Your task to perform on an android device: Look up the best rated coffee table on Ikea Image 0: 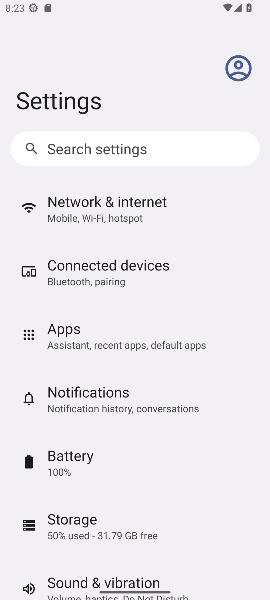
Step 0: press home button
Your task to perform on an android device: Look up the best rated coffee table on Ikea Image 1: 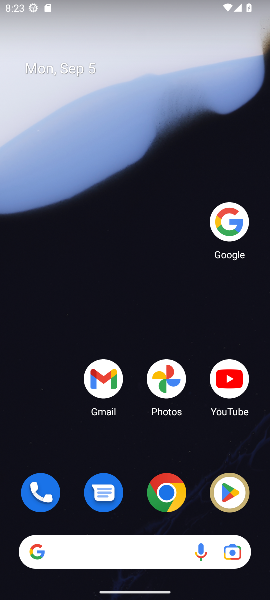
Step 1: click (225, 207)
Your task to perform on an android device: Look up the best rated coffee table on Ikea Image 2: 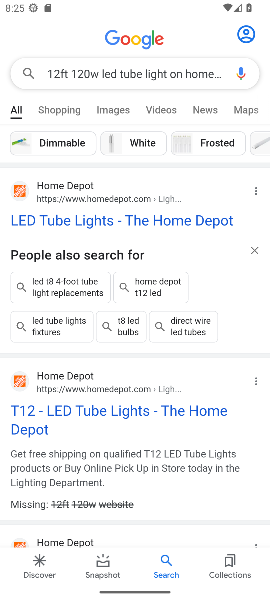
Step 2: click (111, 211)
Your task to perform on an android device: Look up the best rated coffee table on Ikea Image 3: 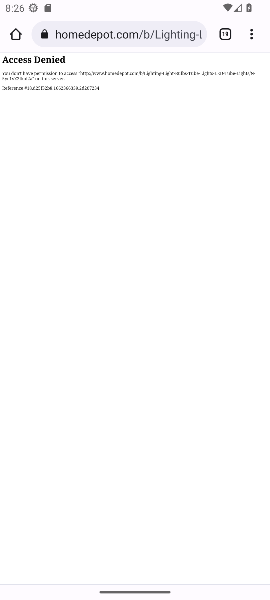
Step 3: task complete